Your task to perform on an android device: Open the calendar and show me this week's events Image 0: 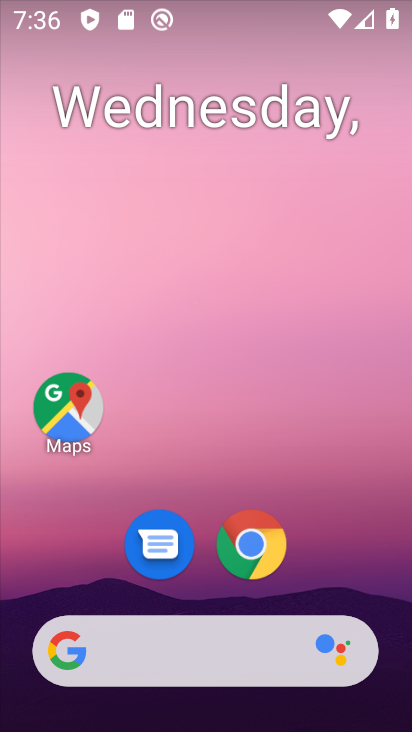
Step 0: drag from (362, 566) to (263, 116)
Your task to perform on an android device: Open the calendar and show me this week's events Image 1: 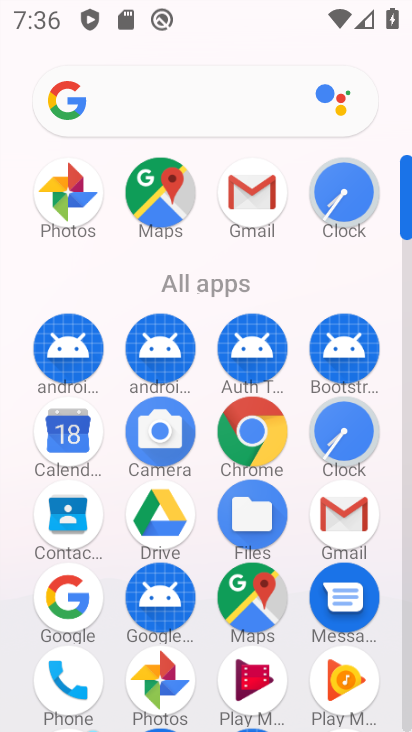
Step 1: click (70, 435)
Your task to perform on an android device: Open the calendar and show me this week's events Image 2: 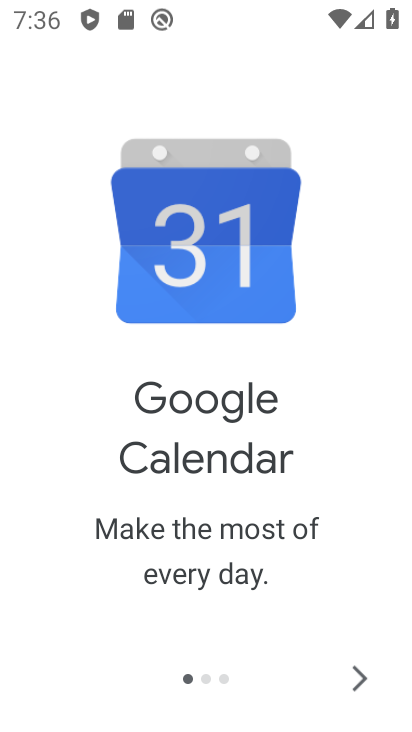
Step 2: click (349, 658)
Your task to perform on an android device: Open the calendar and show me this week's events Image 3: 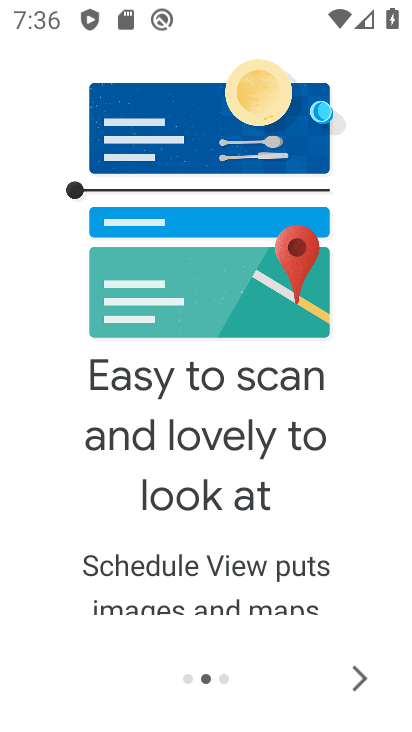
Step 3: click (349, 658)
Your task to perform on an android device: Open the calendar and show me this week's events Image 4: 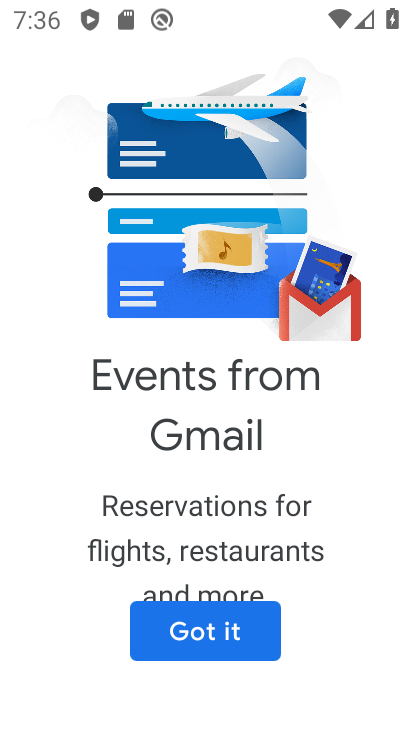
Step 4: click (147, 640)
Your task to perform on an android device: Open the calendar and show me this week's events Image 5: 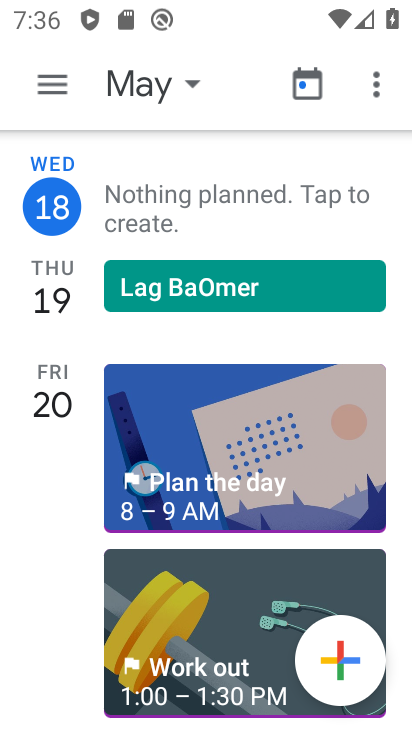
Step 5: click (52, 77)
Your task to perform on an android device: Open the calendar and show me this week's events Image 6: 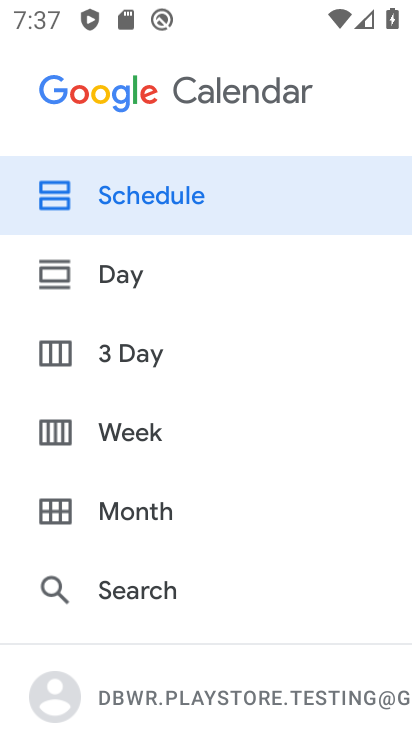
Step 6: click (145, 446)
Your task to perform on an android device: Open the calendar and show me this week's events Image 7: 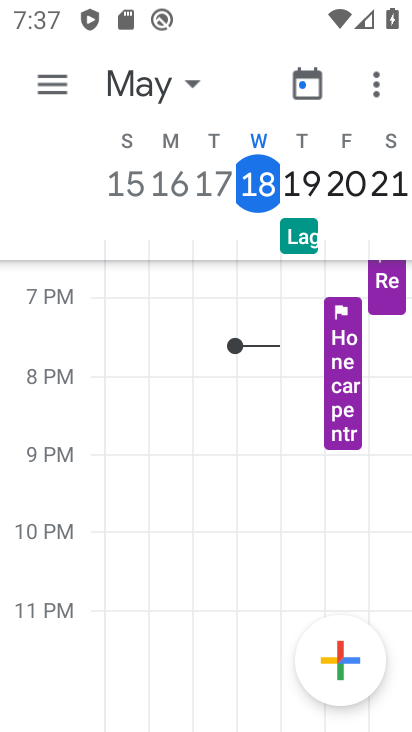
Step 7: task complete